Your task to perform on an android device: Open the web browser Image 0: 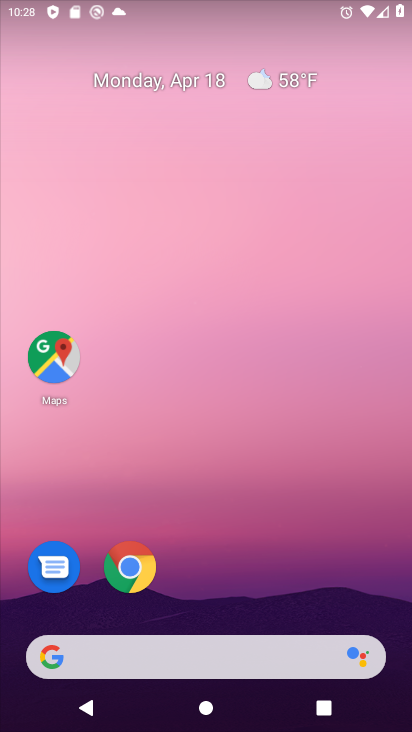
Step 0: click (128, 565)
Your task to perform on an android device: Open the web browser Image 1: 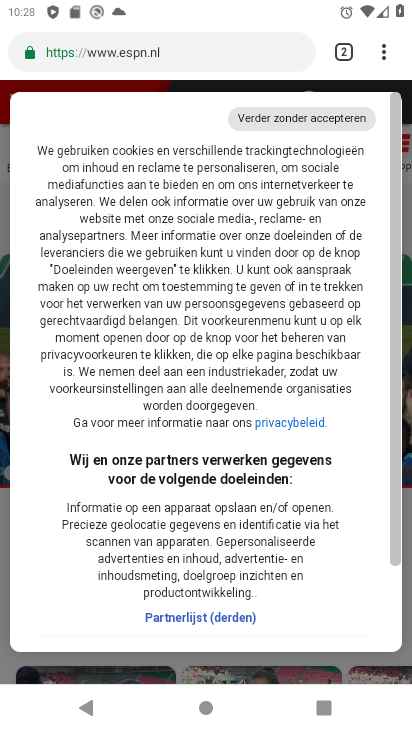
Step 1: task complete